Your task to perform on an android device: turn on notifications settings in the gmail app Image 0: 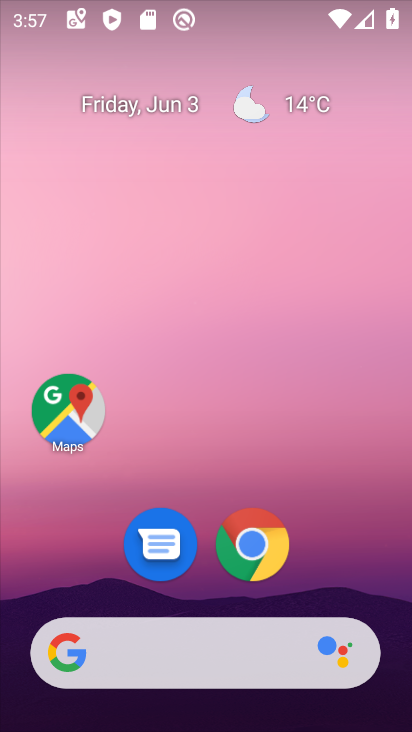
Step 0: drag from (369, 612) to (336, 192)
Your task to perform on an android device: turn on notifications settings in the gmail app Image 1: 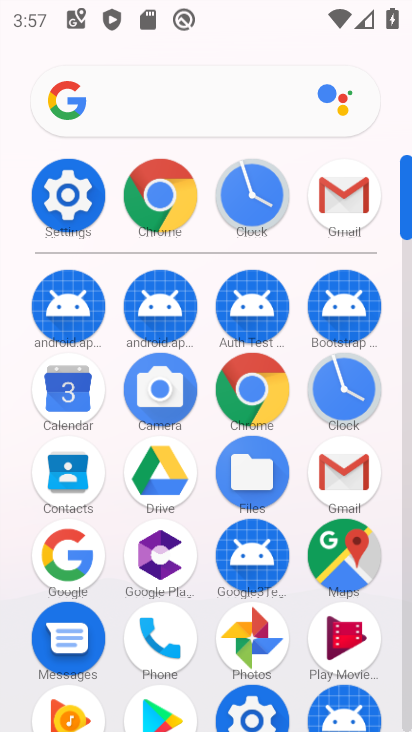
Step 1: click (409, 628)
Your task to perform on an android device: turn on notifications settings in the gmail app Image 2: 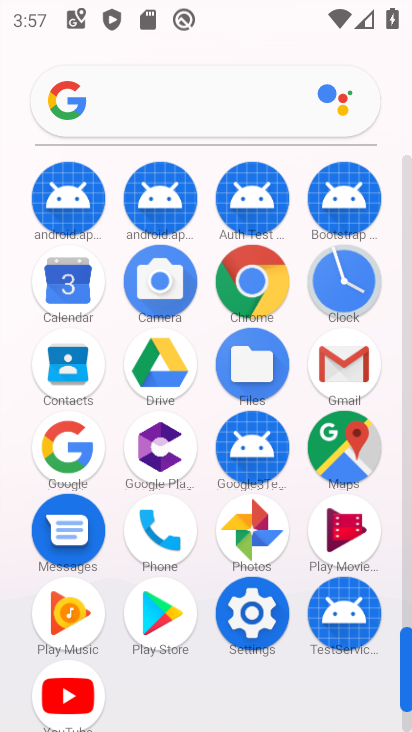
Step 2: click (345, 353)
Your task to perform on an android device: turn on notifications settings in the gmail app Image 3: 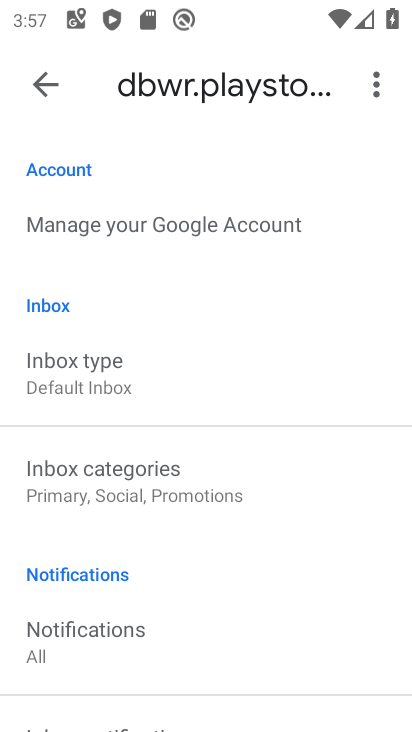
Step 3: drag from (213, 657) to (234, 240)
Your task to perform on an android device: turn on notifications settings in the gmail app Image 4: 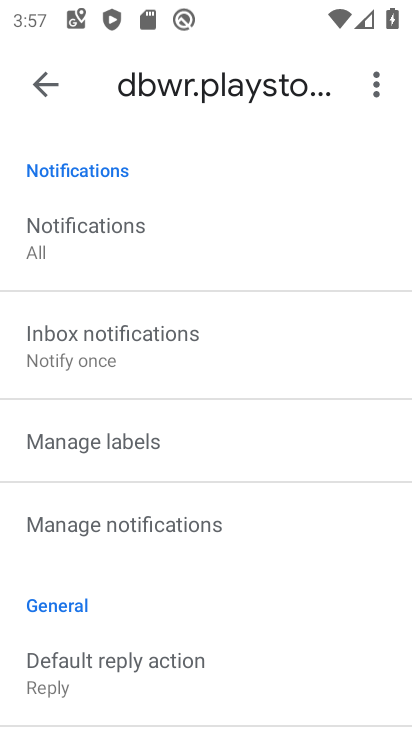
Step 4: click (107, 515)
Your task to perform on an android device: turn on notifications settings in the gmail app Image 5: 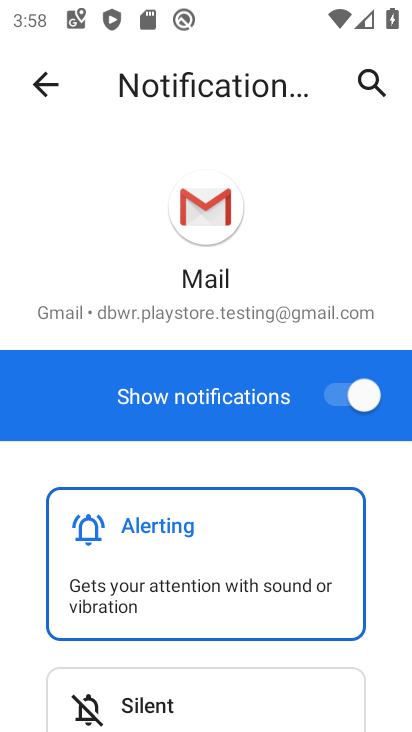
Step 5: drag from (274, 640) to (248, 143)
Your task to perform on an android device: turn on notifications settings in the gmail app Image 6: 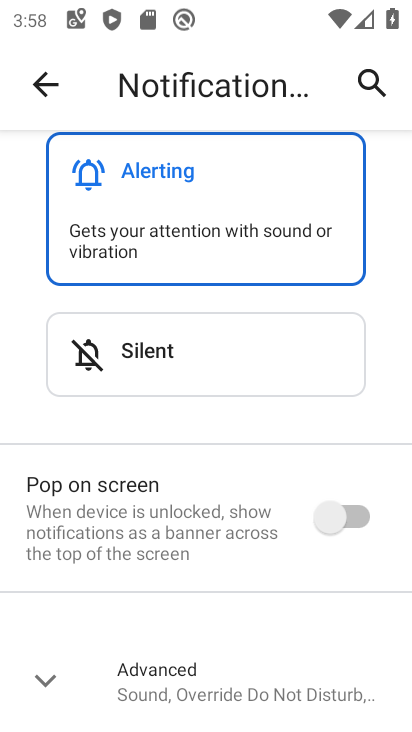
Step 6: click (37, 685)
Your task to perform on an android device: turn on notifications settings in the gmail app Image 7: 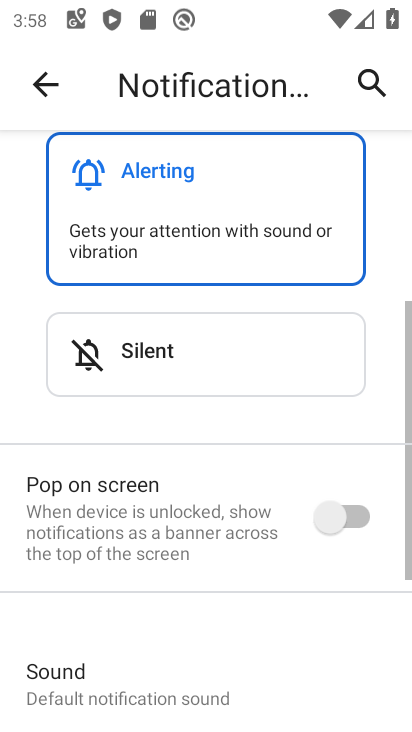
Step 7: task complete